Your task to perform on an android device: What is the recent news? Image 0: 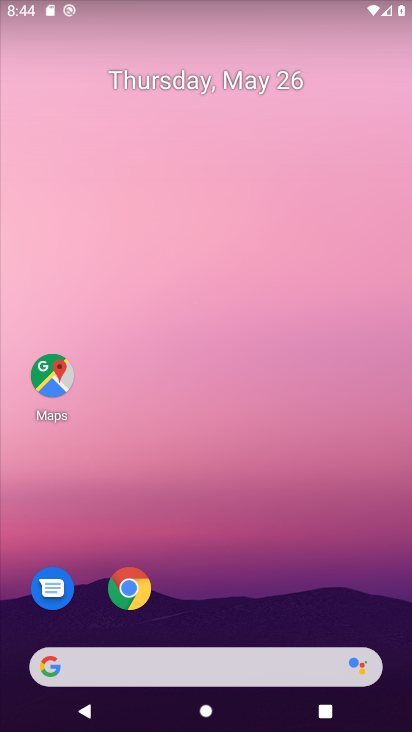
Step 0: drag from (251, 583) to (238, 33)
Your task to perform on an android device: What is the recent news? Image 1: 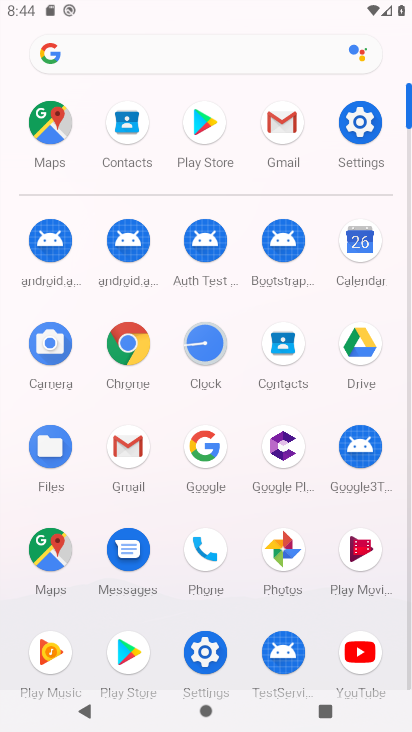
Step 1: click (116, 46)
Your task to perform on an android device: What is the recent news? Image 2: 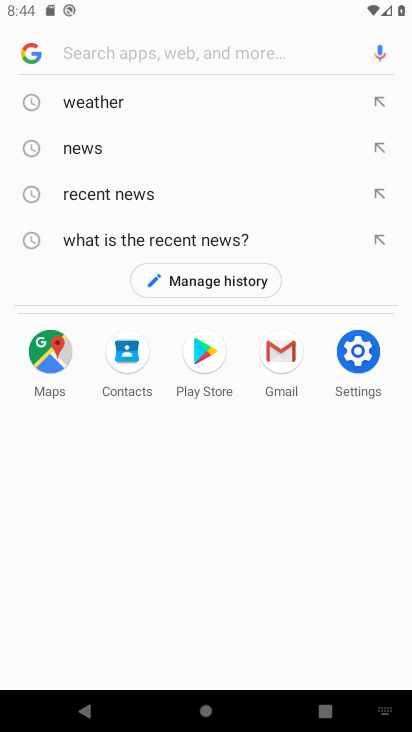
Step 2: type "what's the news"
Your task to perform on an android device: What is the recent news? Image 3: 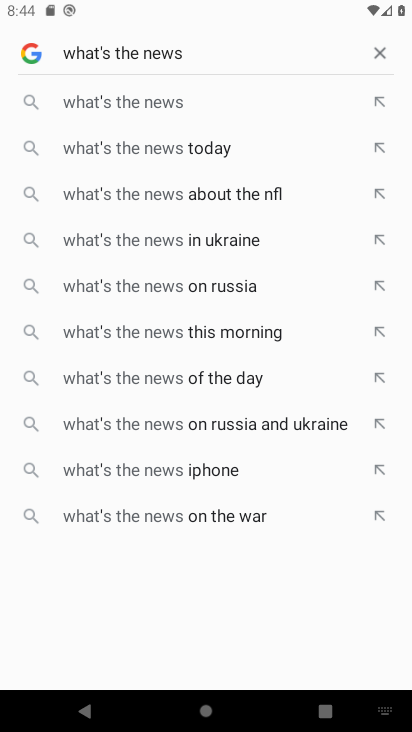
Step 3: click (123, 98)
Your task to perform on an android device: What is the recent news? Image 4: 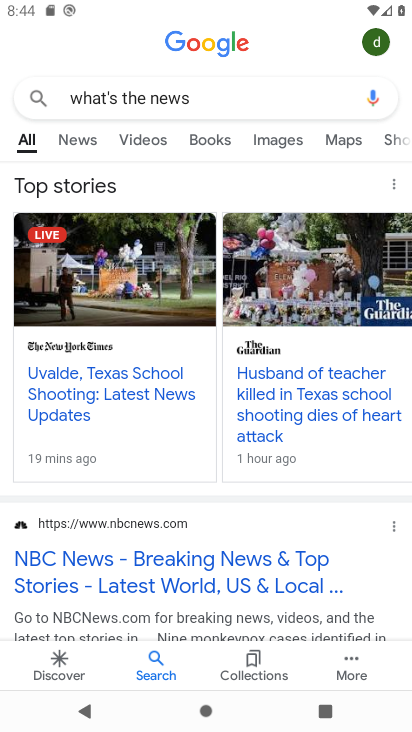
Step 4: click (86, 146)
Your task to perform on an android device: What is the recent news? Image 5: 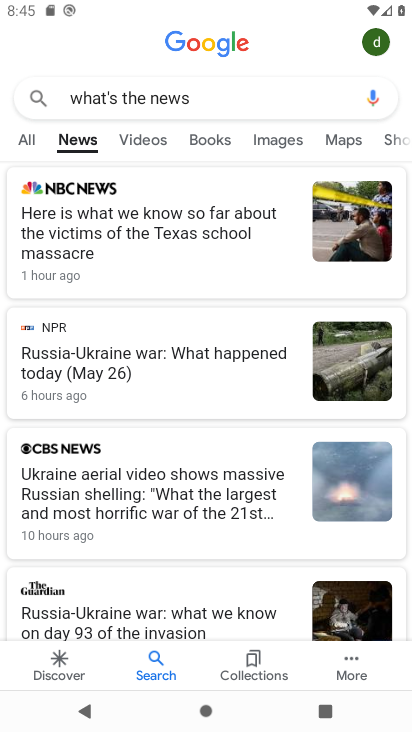
Step 5: task complete